Your task to perform on an android device: turn on sleep mode Image 0: 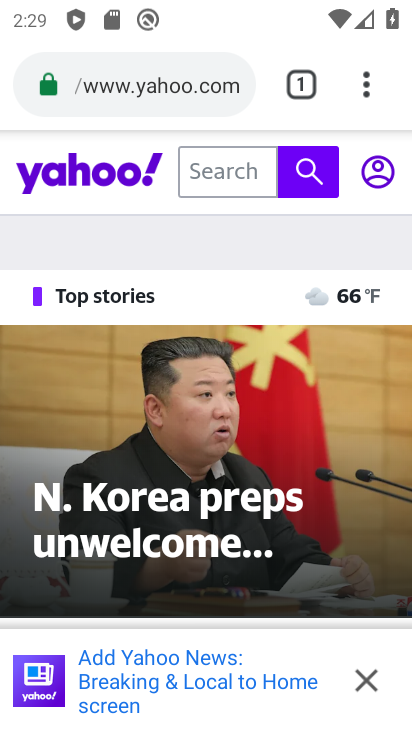
Step 0: press home button
Your task to perform on an android device: turn on sleep mode Image 1: 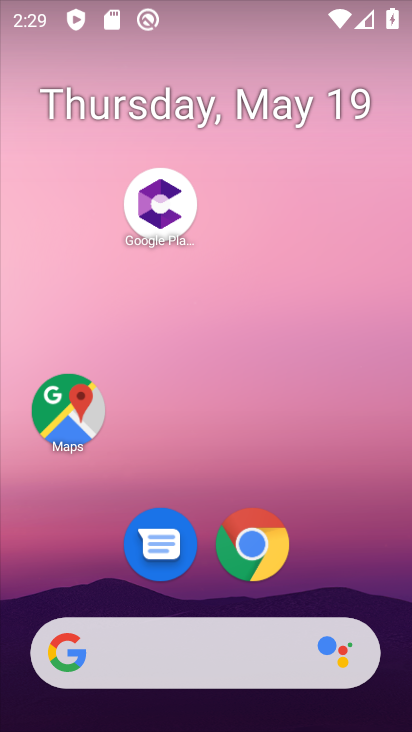
Step 1: drag from (287, 700) to (257, 189)
Your task to perform on an android device: turn on sleep mode Image 2: 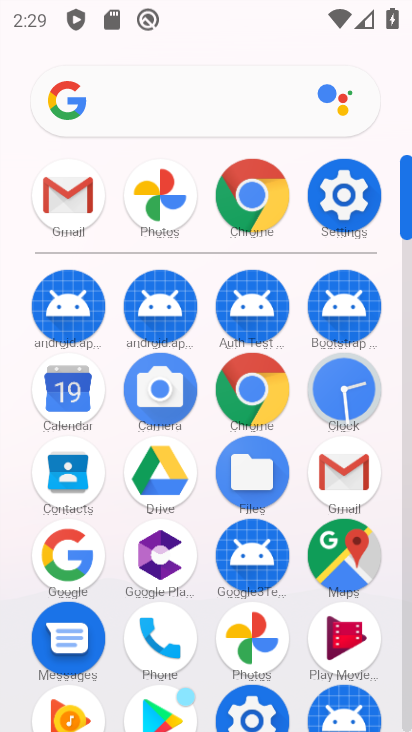
Step 2: click (333, 225)
Your task to perform on an android device: turn on sleep mode Image 3: 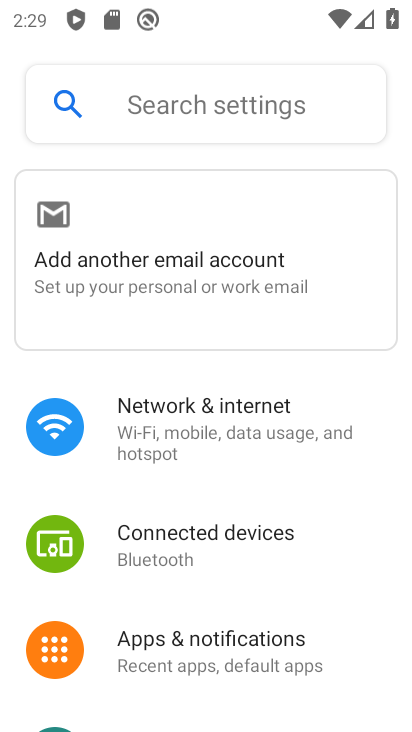
Step 3: click (176, 118)
Your task to perform on an android device: turn on sleep mode Image 4: 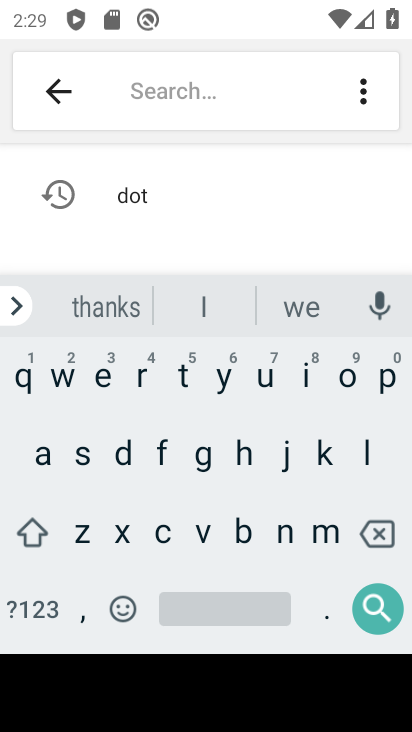
Step 4: click (76, 456)
Your task to perform on an android device: turn on sleep mode Image 5: 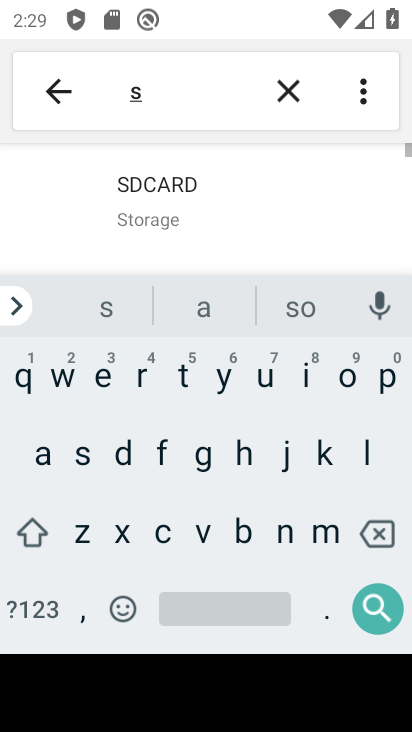
Step 5: click (368, 453)
Your task to perform on an android device: turn on sleep mode Image 6: 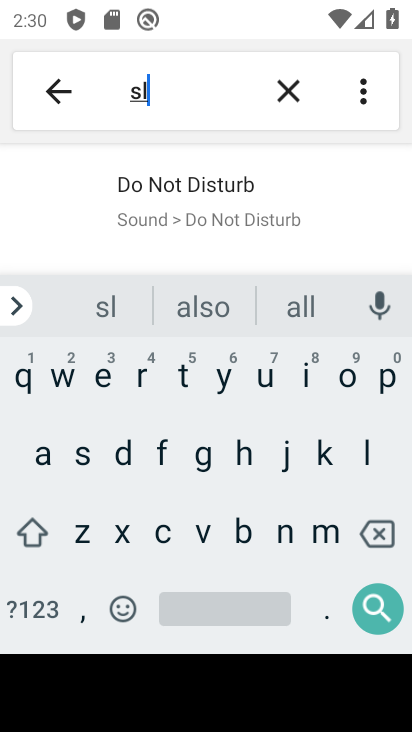
Step 6: click (102, 376)
Your task to perform on an android device: turn on sleep mode Image 7: 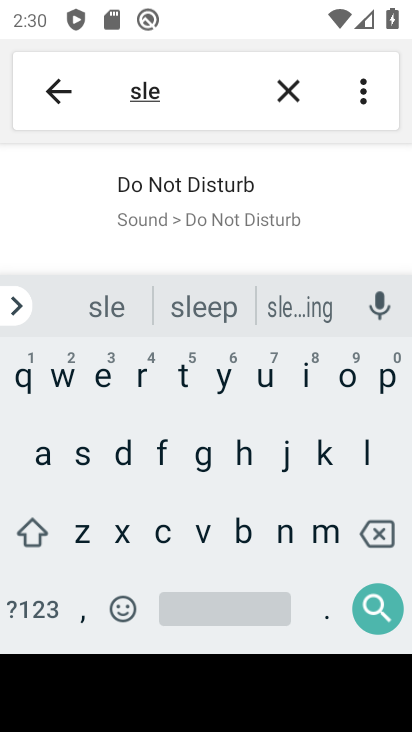
Step 7: click (223, 198)
Your task to perform on an android device: turn on sleep mode Image 8: 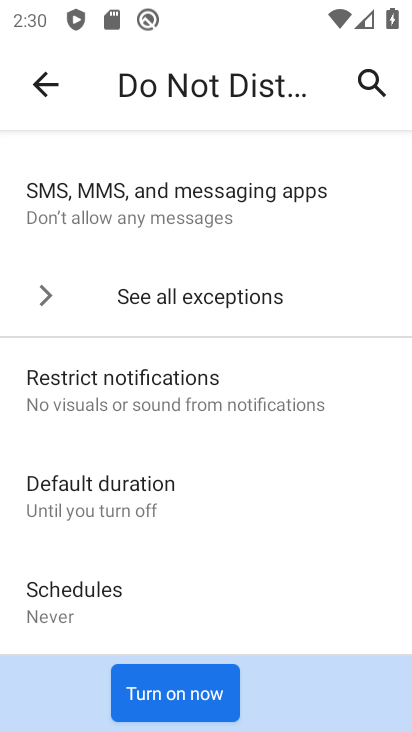
Step 8: click (162, 661)
Your task to perform on an android device: turn on sleep mode Image 9: 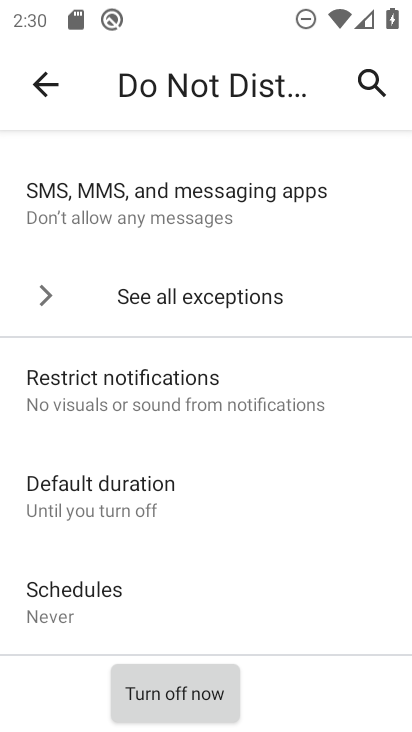
Step 9: task complete